Your task to perform on an android device: refresh tabs in the chrome app Image 0: 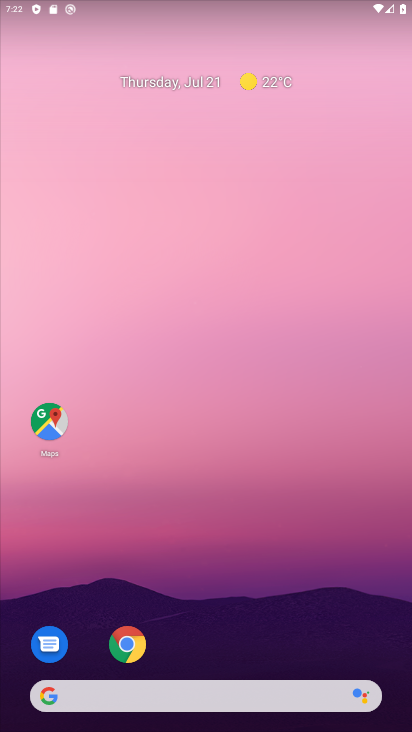
Step 0: drag from (337, 580) to (336, 176)
Your task to perform on an android device: refresh tabs in the chrome app Image 1: 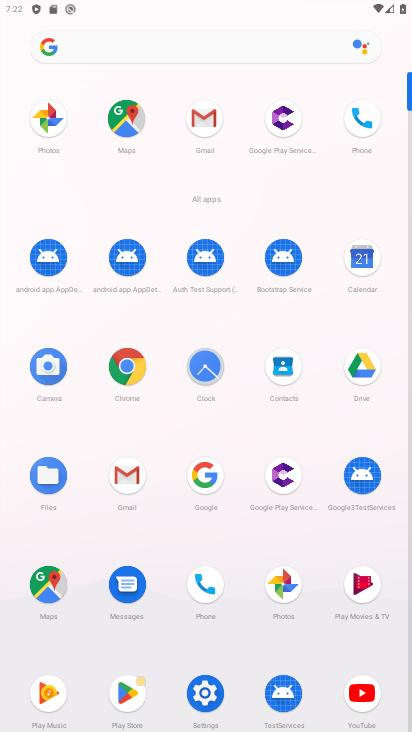
Step 1: click (132, 369)
Your task to perform on an android device: refresh tabs in the chrome app Image 2: 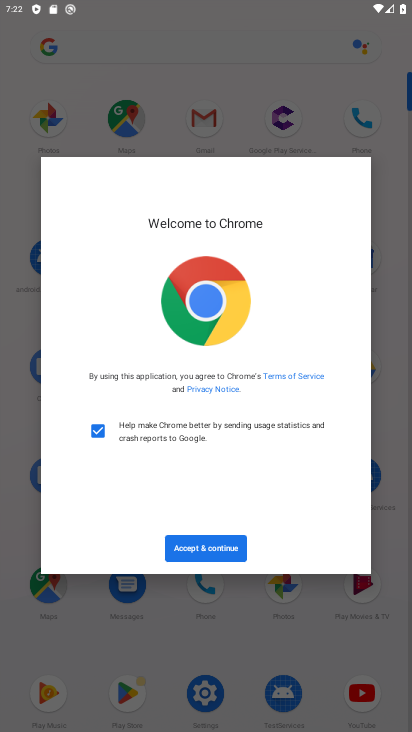
Step 2: click (189, 545)
Your task to perform on an android device: refresh tabs in the chrome app Image 3: 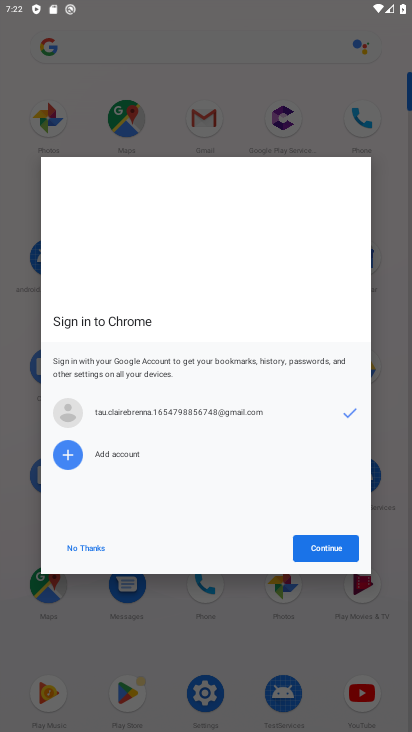
Step 3: click (304, 548)
Your task to perform on an android device: refresh tabs in the chrome app Image 4: 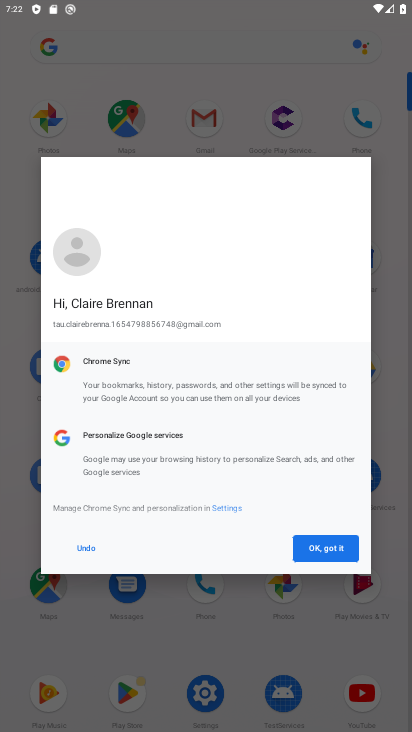
Step 4: click (304, 548)
Your task to perform on an android device: refresh tabs in the chrome app Image 5: 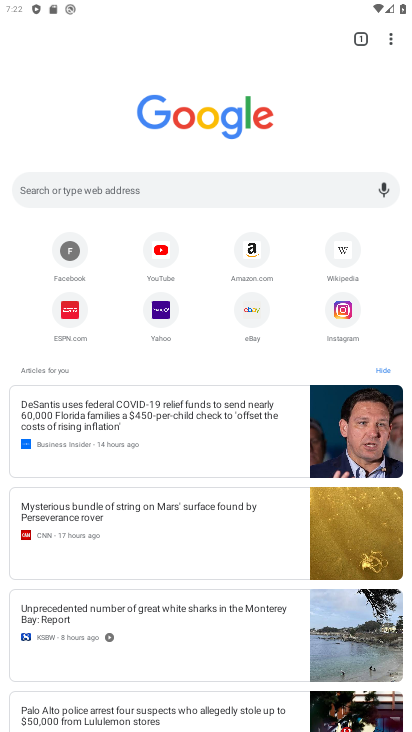
Step 5: click (390, 43)
Your task to perform on an android device: refresh tabs in the chrome app Image 6: 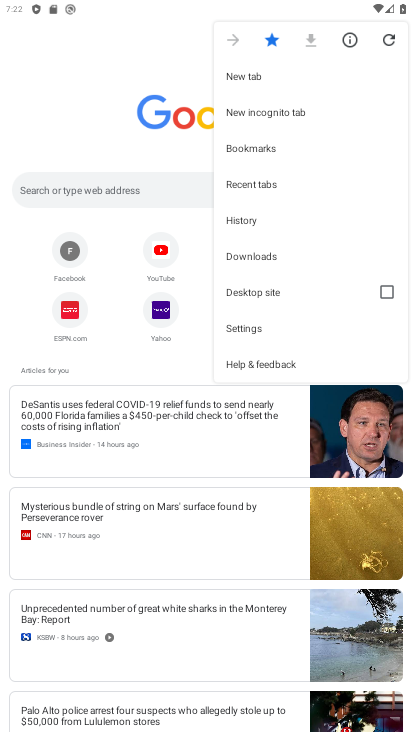
Step 6: click (390, 38)
Your task to perform on an android device: refresh tabs in the chrome app Image 7: 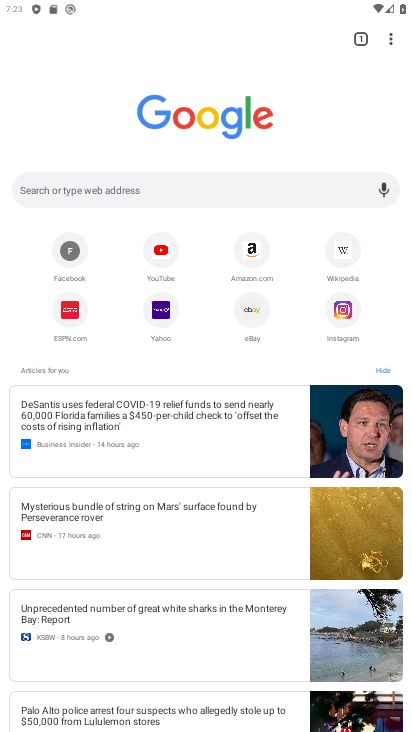
Step 7: task complete